Your task to perform on an android device: View the shopping cart on bestbuy. Image 0: 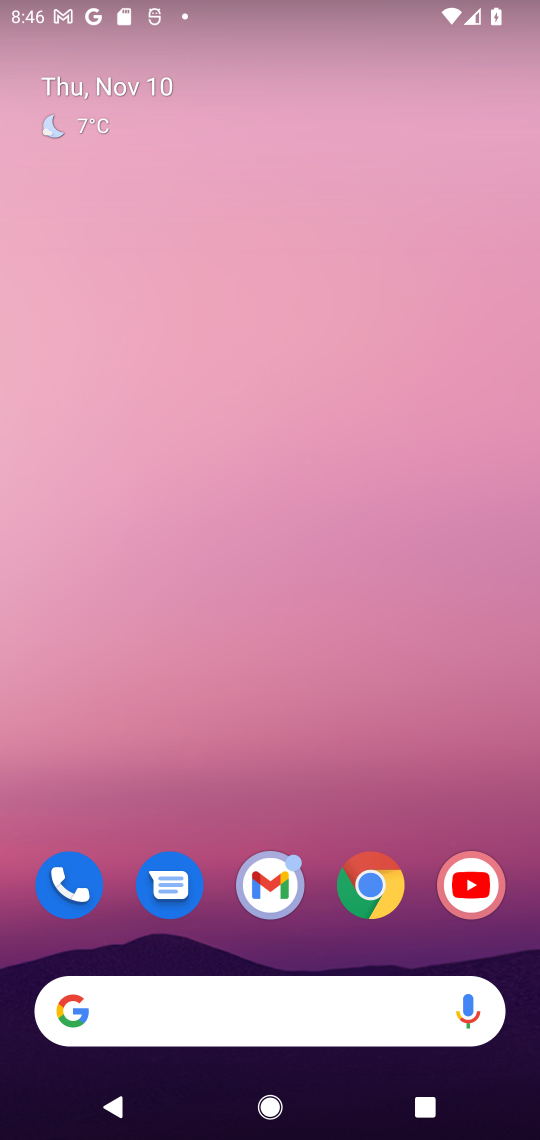
Step 0: click (374, 883)
Your task to perform on an android device: View the shopping cart on bestbuy. Image 1: 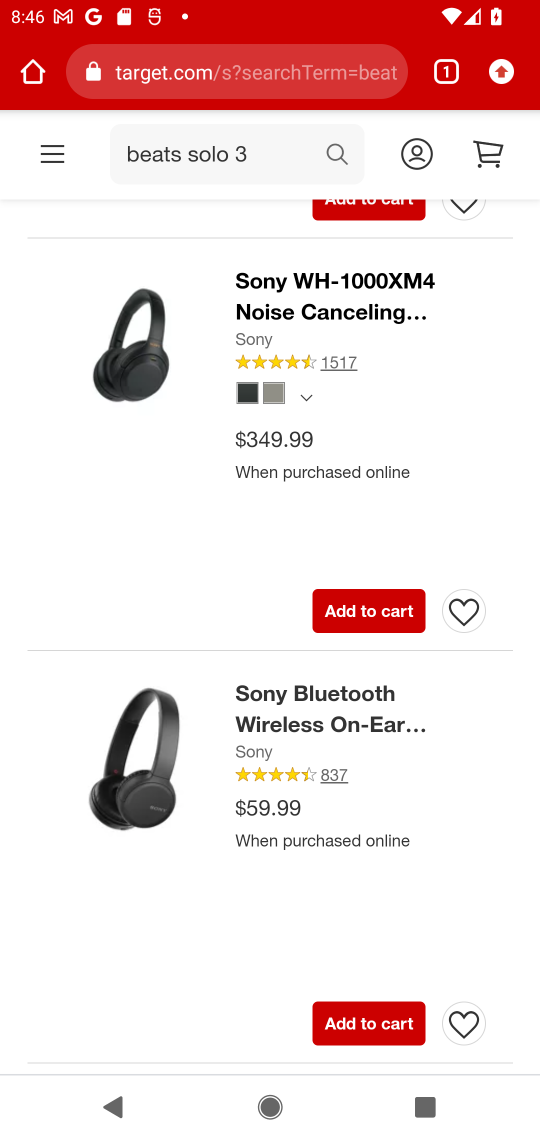
Step 1: click (268, 85)
Your task to perform on an android device: View the shopping cart on bestbuy. Image 2: 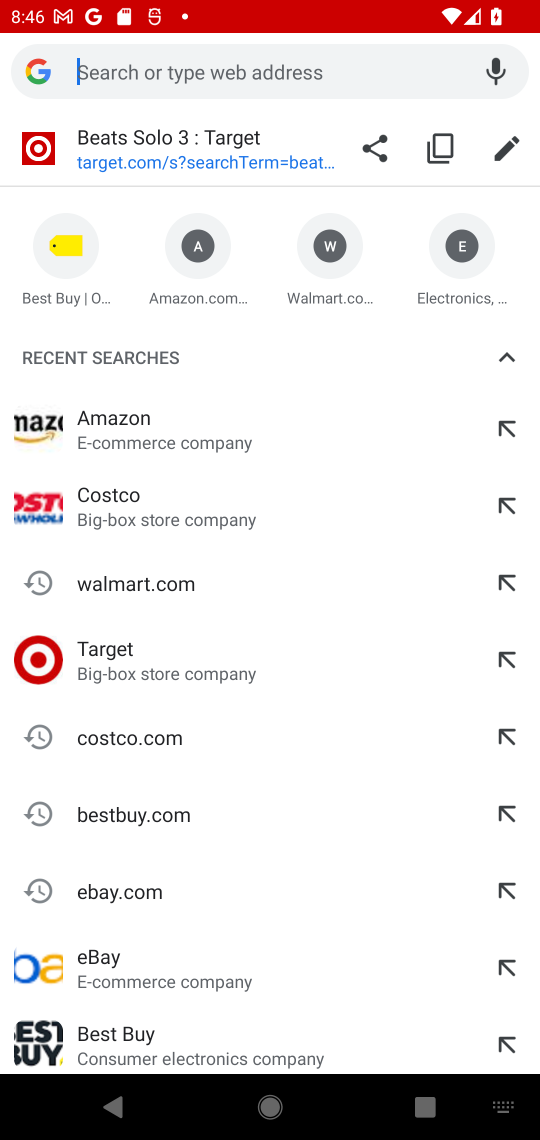
Step 2: click (160, 816)
Your task to perform on an android device: View the shopping cart on bestbuy. Image 3: 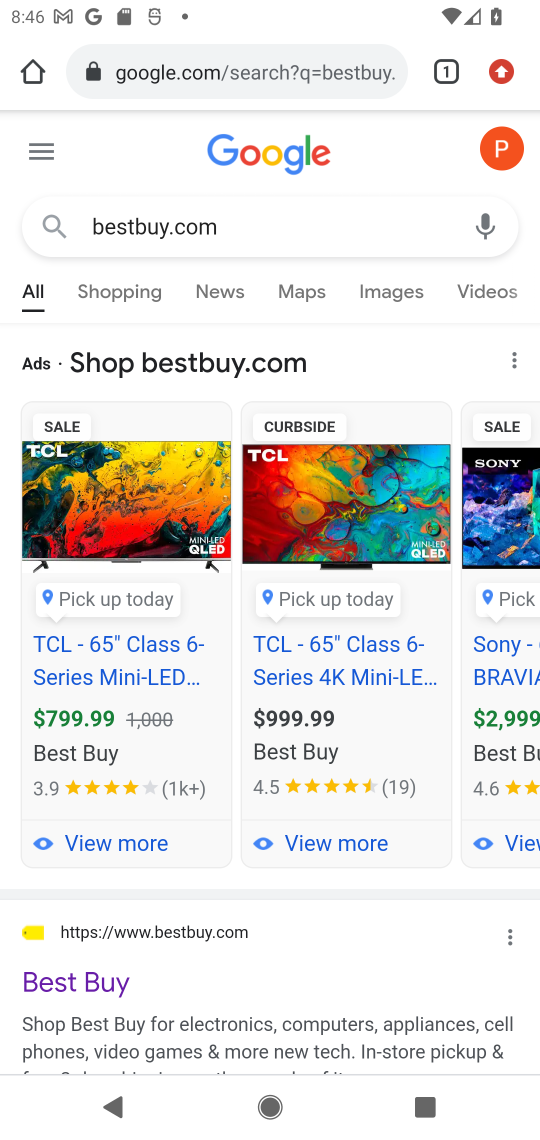
Step 3: click (215, 934)
Your task to perform on an android device: View the shopping cart on bestbuy. Image 4: 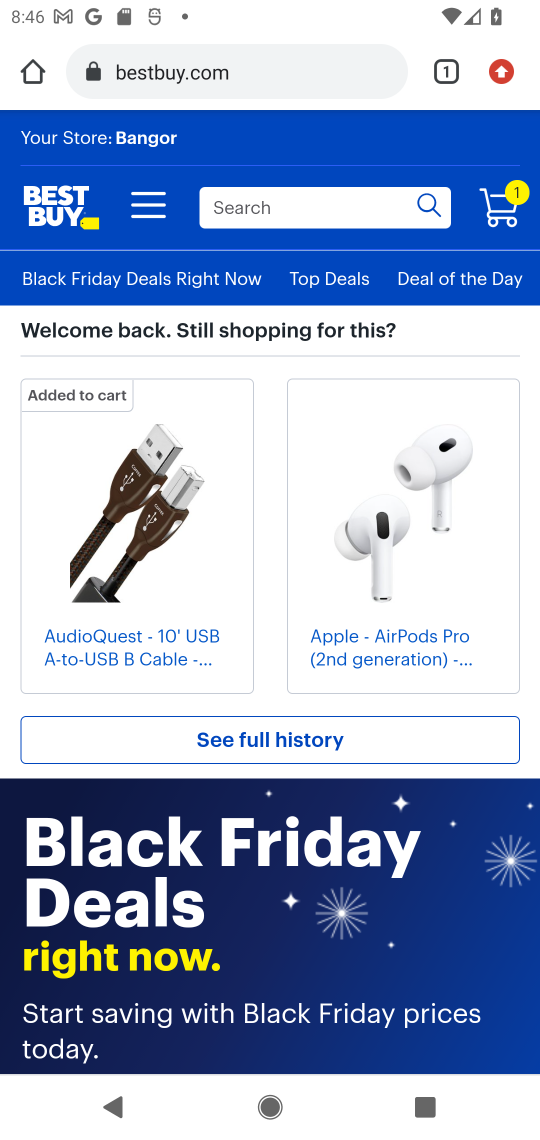
Step 4: click (497, 208)
Your task to perform on an android device: View the shopping cart on bestbuy. Image 5: 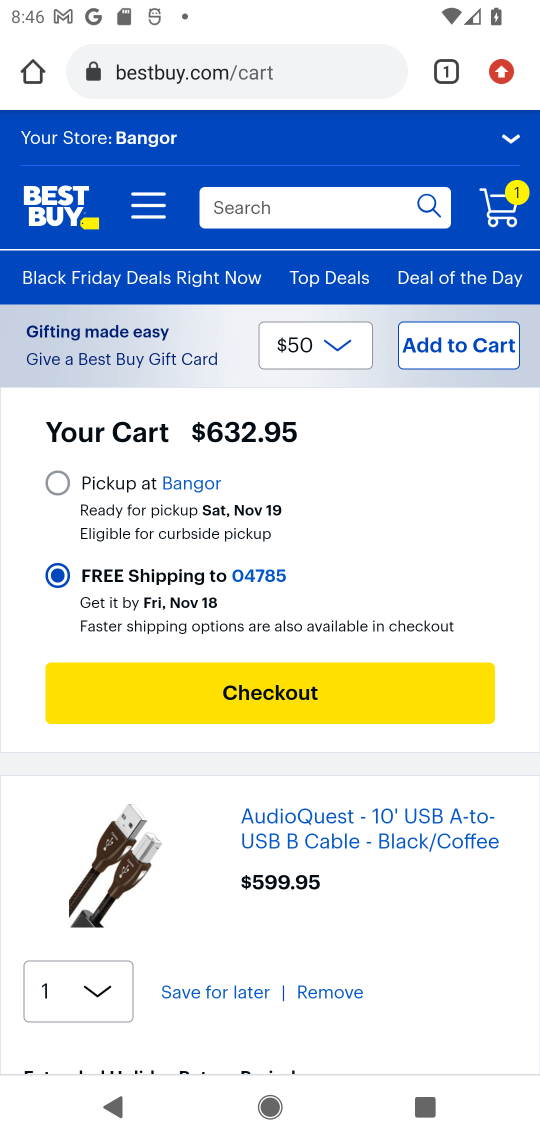
Step 5: task complete